Your task to perform on an android device: Go to network settings Image 0: 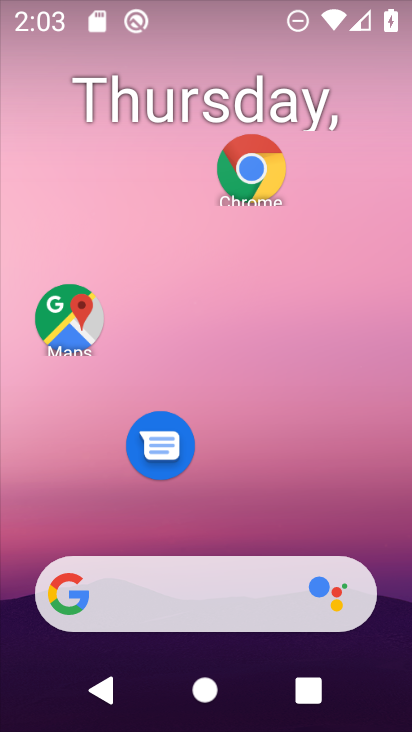
Step 0: drag from (265, 642) to (272, 185)
Your task to perform on an android device: Go to network settings Image 1: 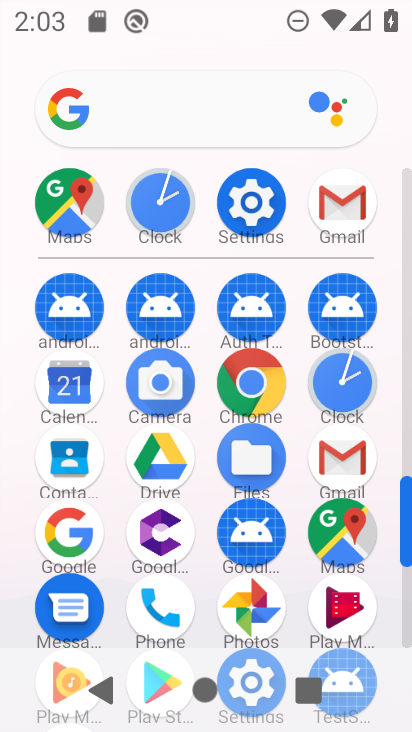
Step 1: click (253, 209)
Your task to perform on an android device: Go to network settings Image 2: 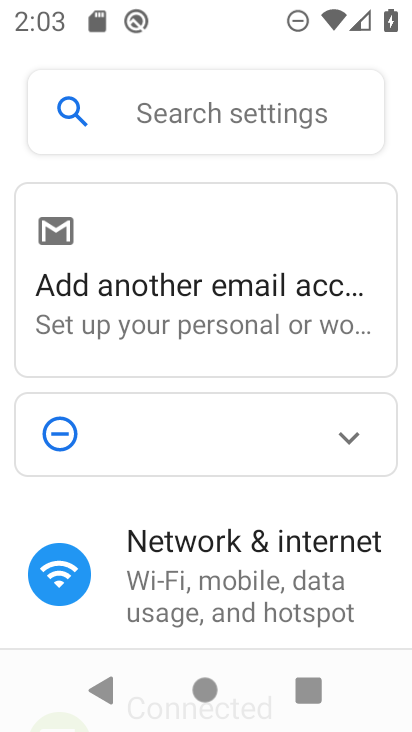
Step 2: task complete